Your task to perform on an android device: turn off wifi Image 0: 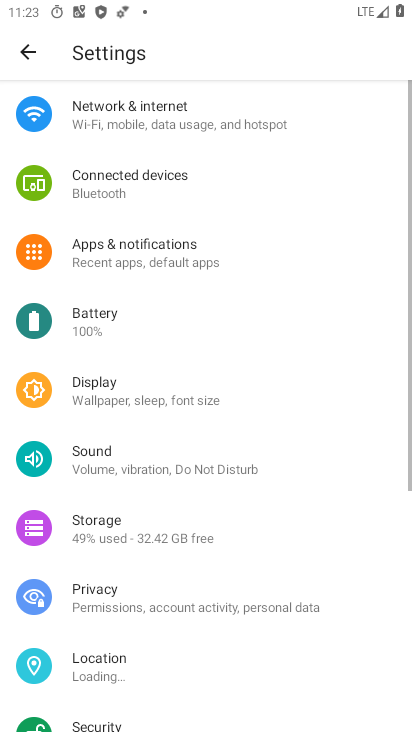
Step 0: press home button
Your task to perform on an android device: turn off wifi Image 1: 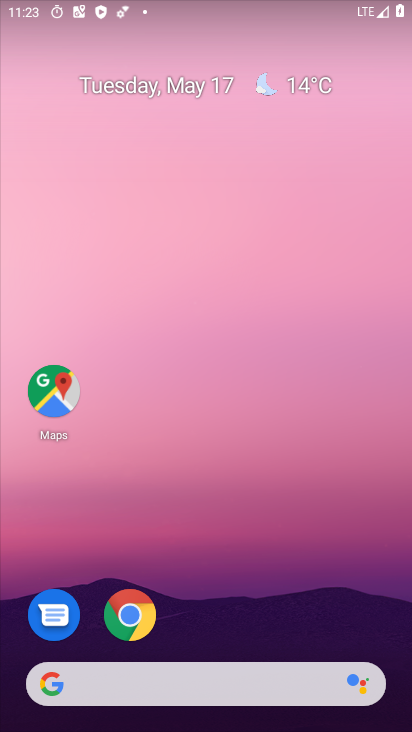
Step 1: drag from (162, 696) to (296, 88)
Your task to perform on an android device: turn off wifi Image 2: 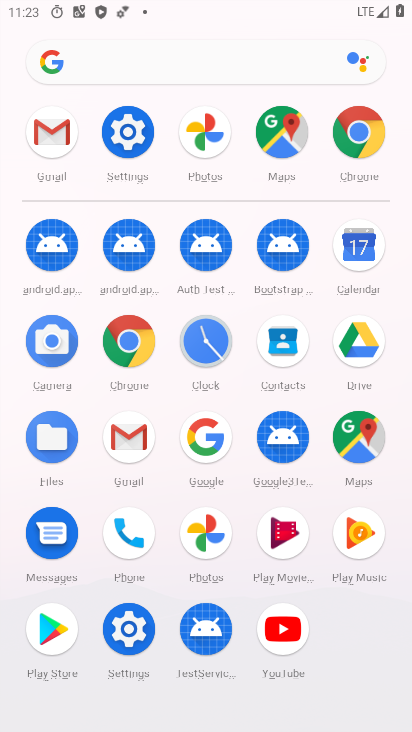
Step 2: click (128, 129)
Your task to perform on an android device: turn off wifi Image 3: 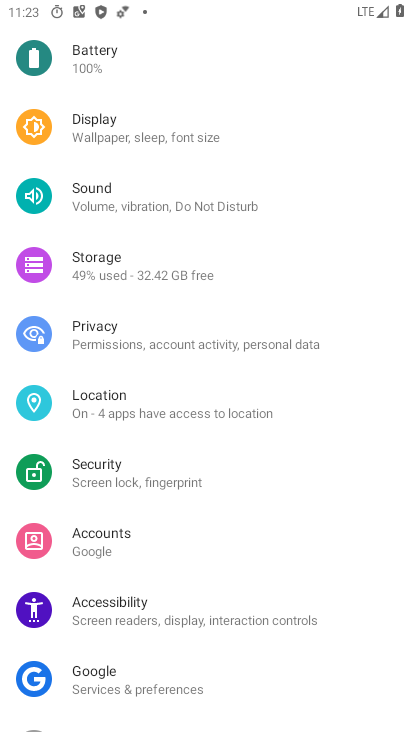
Step 3: drag from (327, 111) to (285, 530)
Your task to perform on an android device: turn off wifi Image 4: 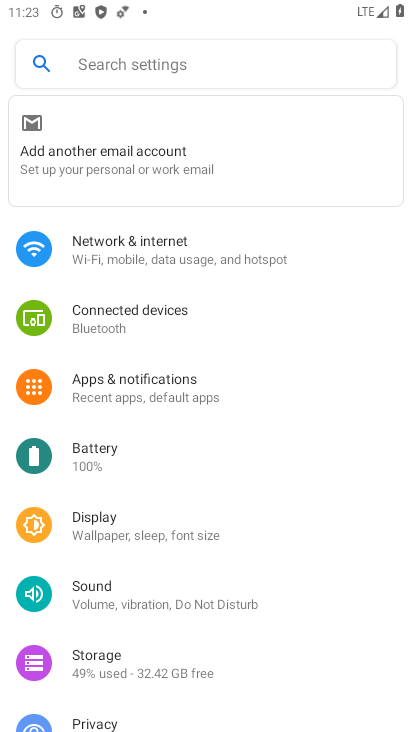
Step 4: click (174, 262)
Your task to perform on an android device: turn off wifi Image 5: 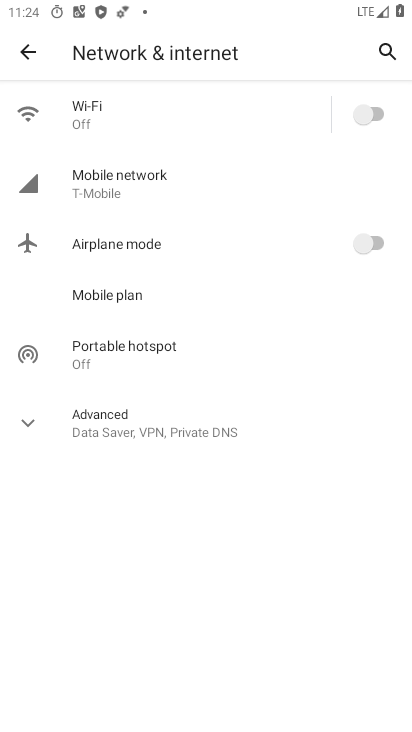
Step 5: task complete